Your task to perform on an android device: turn off javascript in the chrome app Image 0: 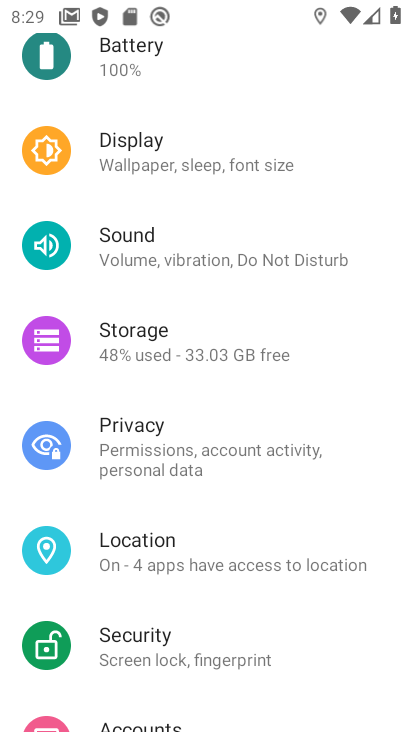
Step 0: drag from (200, 2) to (186, 368)
Your task to perform on an android device: turn off javascript in the chrome app Image 1: 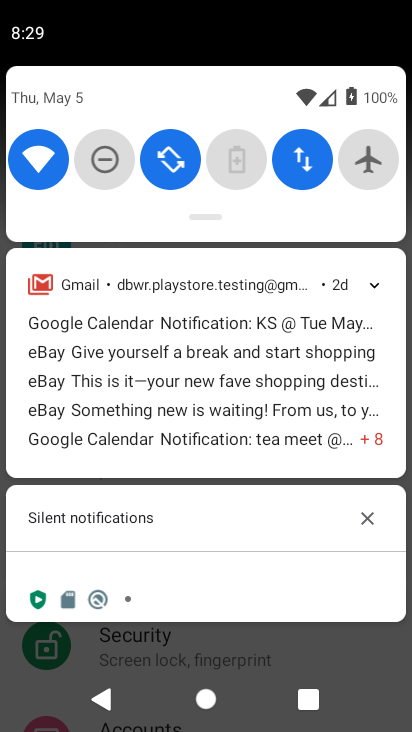
Step 1: click (105, 162)
Your task to perform on an android device: turn off javascript in the chrome app Image 2: 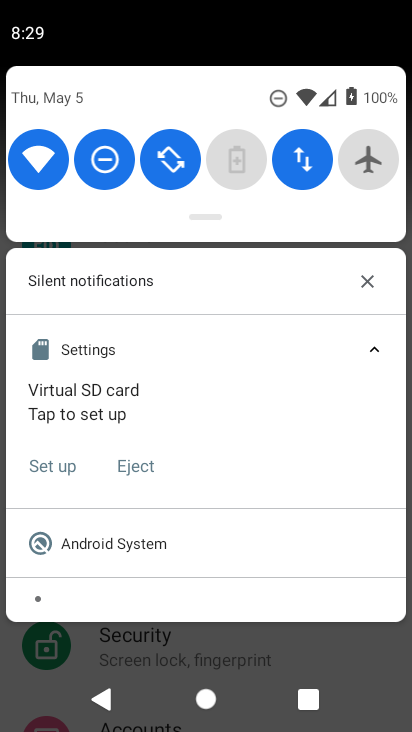
Step 2: task complete